Your task to perform on an android device: Go to notification settings Image 0: 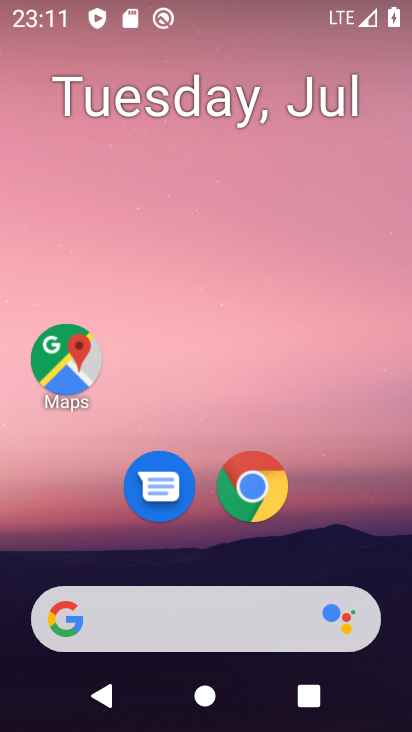
Step 0: press home button
Your task to perform on an android device: Go to notification settings Image 1: 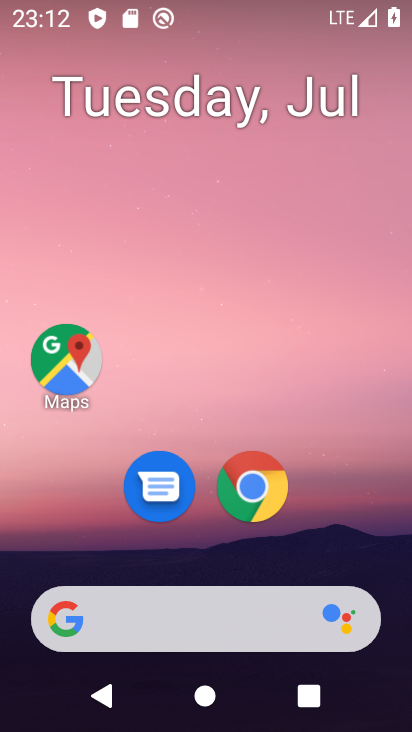
Step 1: drag from (351, 540) to (339, 119)
Your task to perform on an android device: Go to notification settings Image 2: 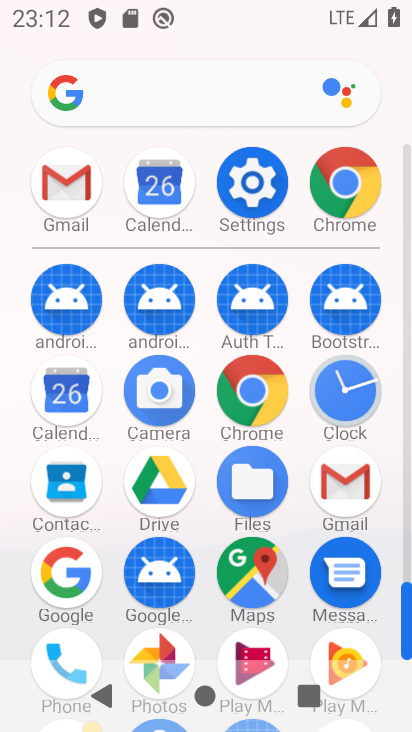
Step 2: click (260, 180)
Your task to perform on an android device: Go to notification settings Image 3: 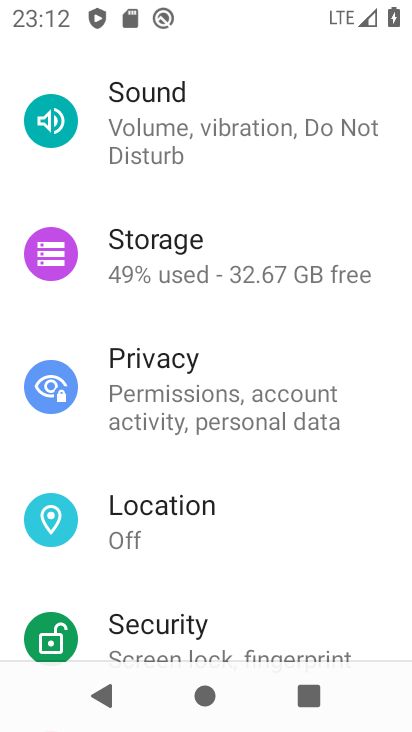
Step 3: drag from (355, 336) to (362, 439)
Your task to perform on an android device: Go to notification settings Image 4: 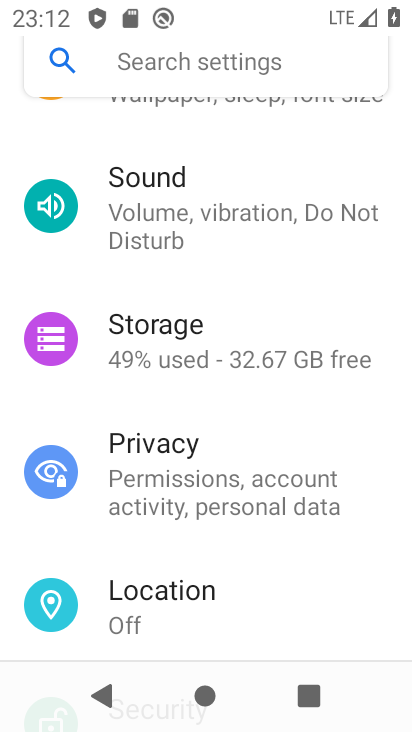
Step 4: drag from (356, 300) to (368, 384)
Your task to perform on an android device: Go to notification settings Image 5: 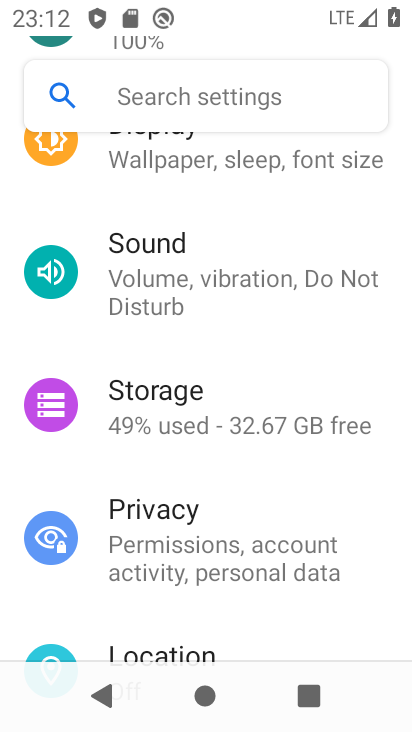
Step 5: drag from (370, 236) to (374, 329)
Your task to perform on an android device: Go to notification settings Image 6: 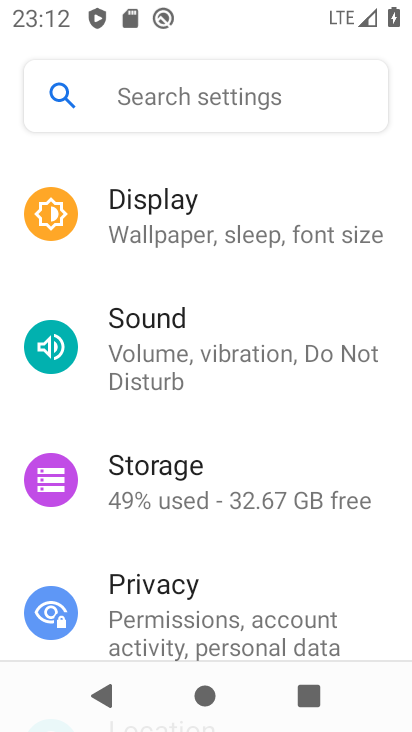
Step 6: drag from (378, 201) to (379, 325)
Your task to perform on an android device: Go to notification settings Image 7: 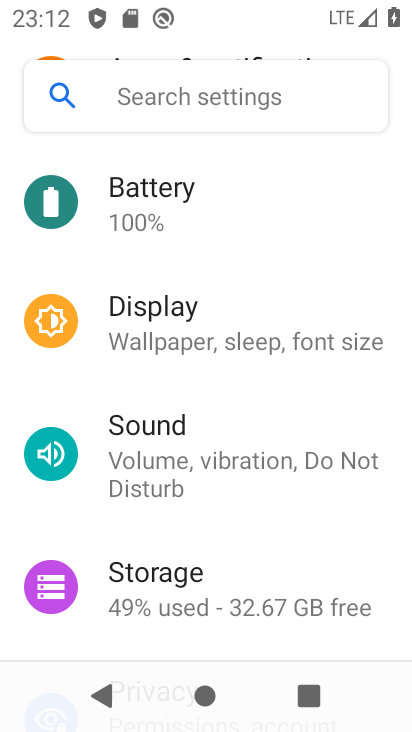
Step 7: drag from (376, 200) to (372, 306)
Your task to perform on an android device: Go to notification settings Image 8: 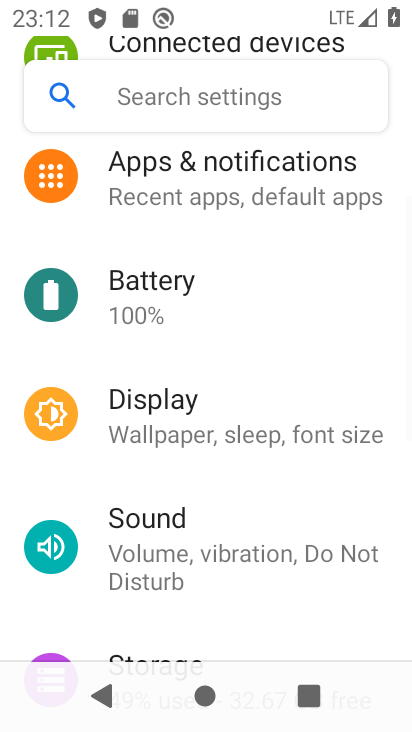
Step 8: drag from (372, 228) to (375, 342)
Your task to perform on an android device: Go to notification settings Image 9: 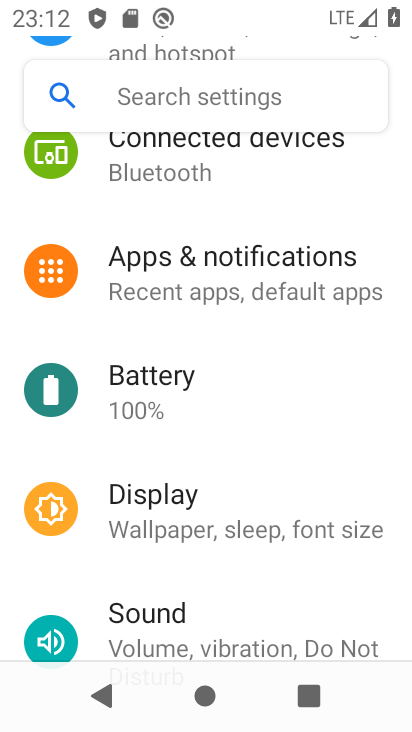
Step 9: drag from (375, 191) to (383, 311)
Your task to perform on an android device: Go to notification settings Image 10: 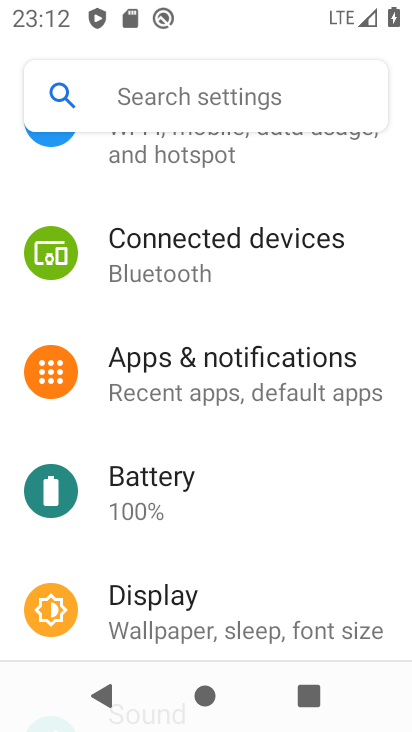
Step 10: drag from (379, 183) to (383, 321)
Your task to perform on an android device: Go to notification settings Image 11: 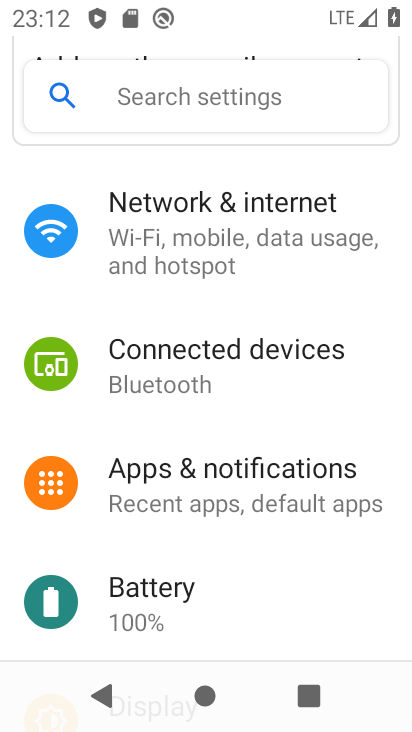
Step 11: drag from (379, 182) to (380, 470)
Your task to perform on an android device: Go to notification settings Image 12: 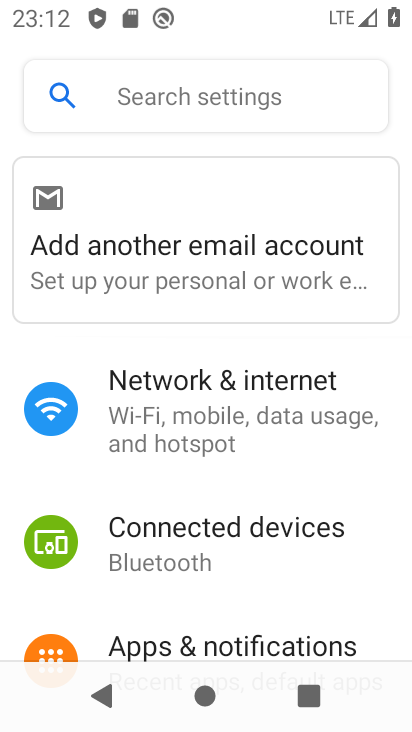
Step 12: drag from (381, 530) to (373, 454)
Your task to perform on an android device: Go to notification settings Image 13: 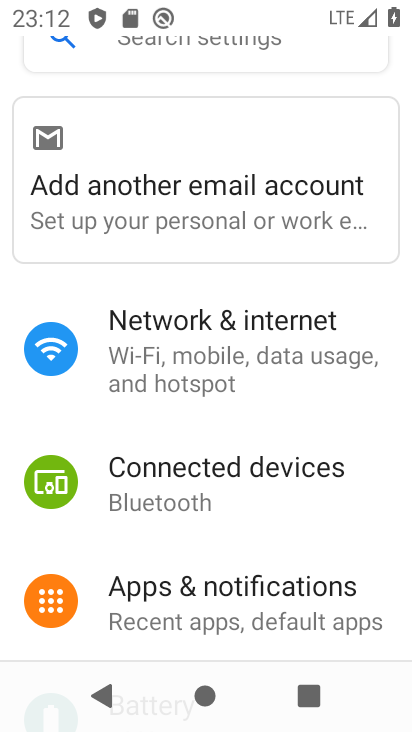
Step 13: drag from (360, 519) to (366, 444)
Your task to perform on an android device: Go to notification settings Image 14: 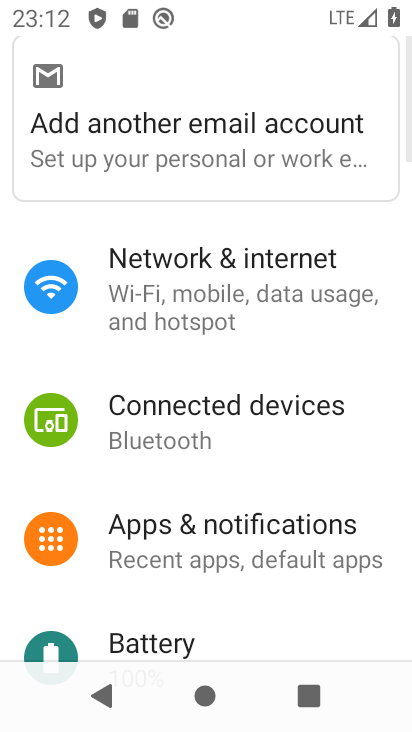
Step 14: drag from (340, 587) to (345, 478)
Your task to perform on an android device: Go to notification settings Image 15: 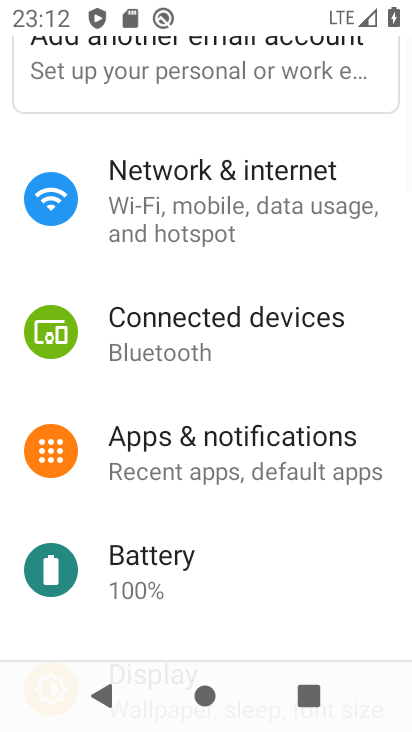
Step 15: drag from (333, 563) to (332, 494)
Your task to perform on an android device: Go to notification settings Image 16: 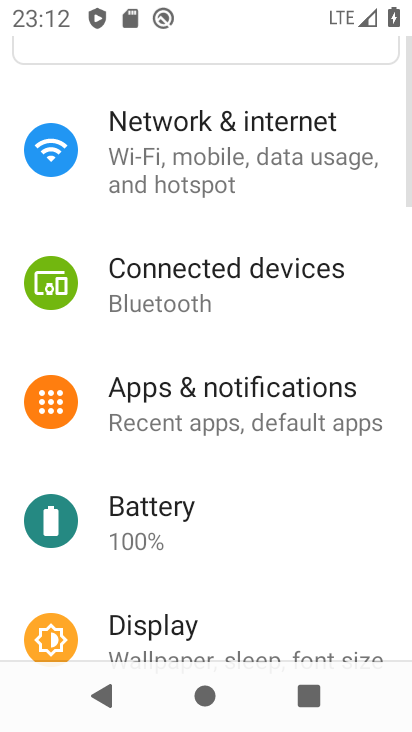
Step 16: drag from (320, 546) to (317, 471)
Your task to perform on an android device: Go to notification settings Image 17: 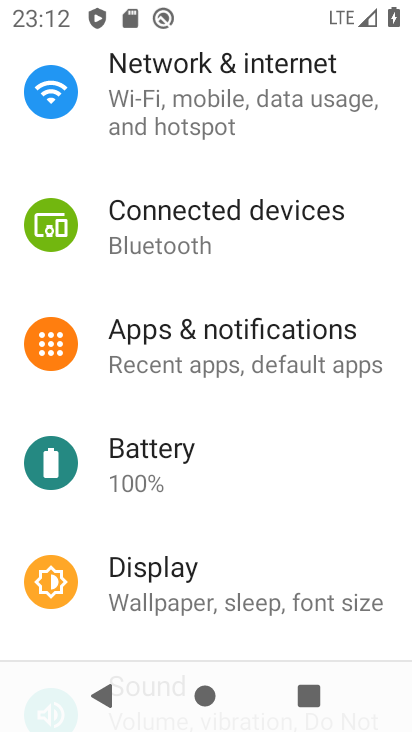
Step 17: drag from (320, 504) to (325, 444)
Your task to perform on an android device: Go to notification settings Image 18: 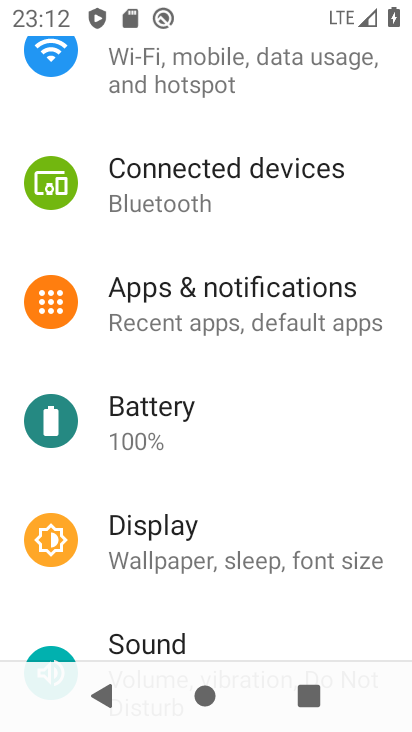
Step 18: click (306, 318)
Your task to perform on an android device: Go to notification settings Image 19: 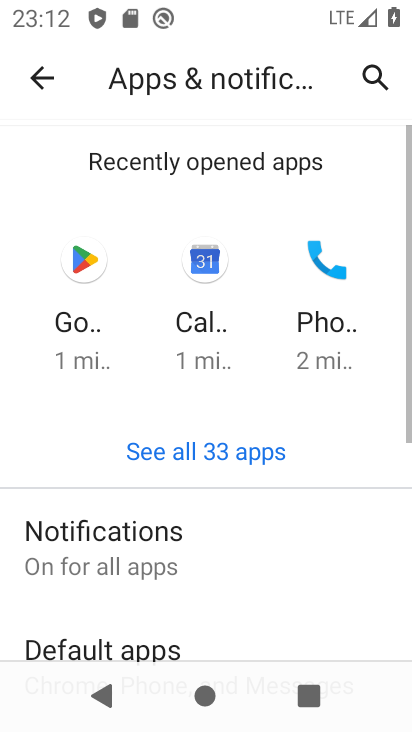
Step 19: drag from (301, 510) to (305, 418)
Your task to perform on an android device: Go to notification settings Image 20: 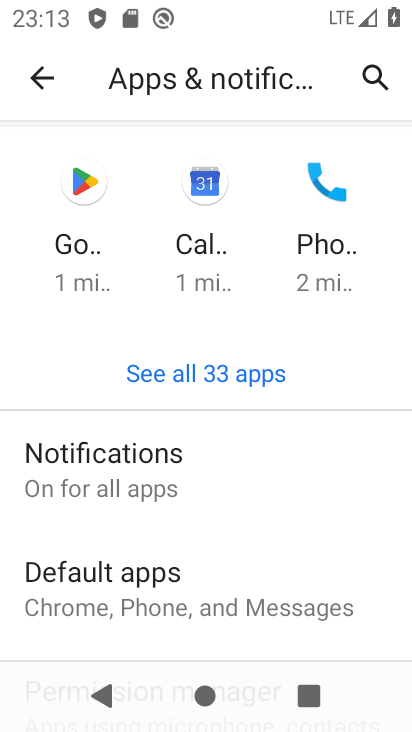
Step 20: drag from (296, 504) to (299, 429)
Your task to perform on an android device: Go to notification settings Image 21: 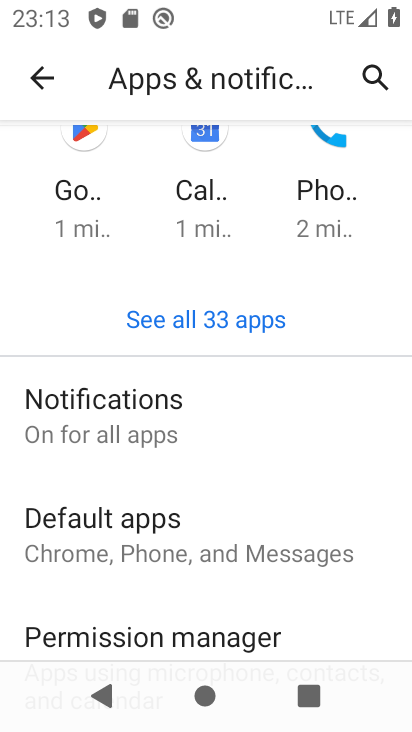
Step 21: drag from (287, 544) to (283, 425)
Your task to perform on an android device: Go to notification settings Image 22: 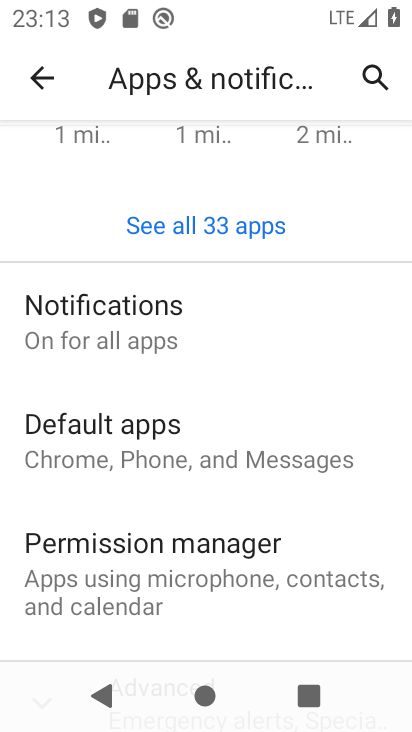
Step 22: click (163, 339)
Your task to perform on an android device: Go to notification settings Image 23: 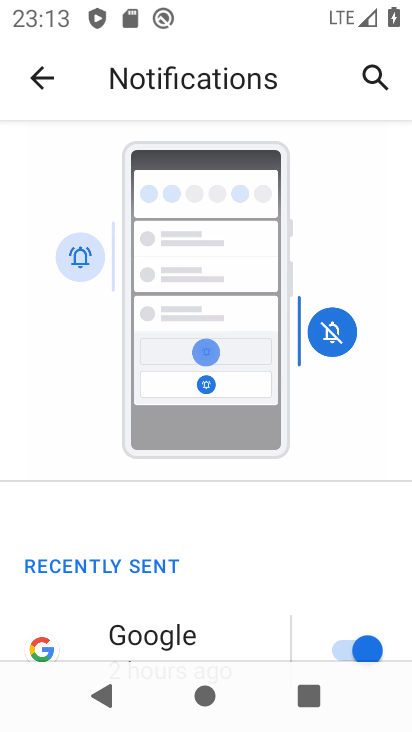
Step 23: task complete